Your task to perform on an android device: find which apps use the phone's location Image 0: 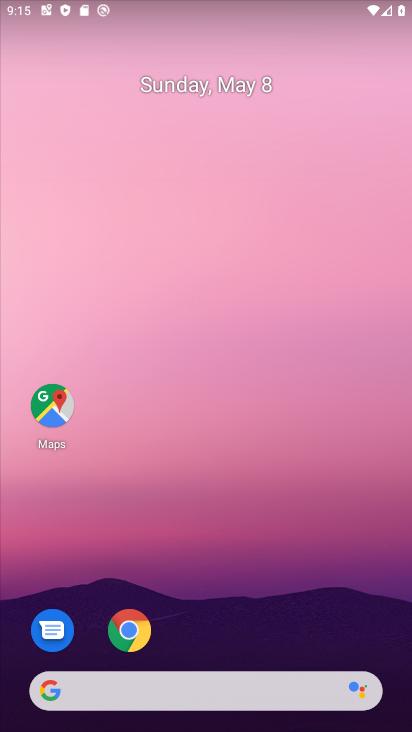
Step 0: drag from (191, 673) to (326, 169)
Your task to perform on an android device: find which apps use the phone's location Image 1: 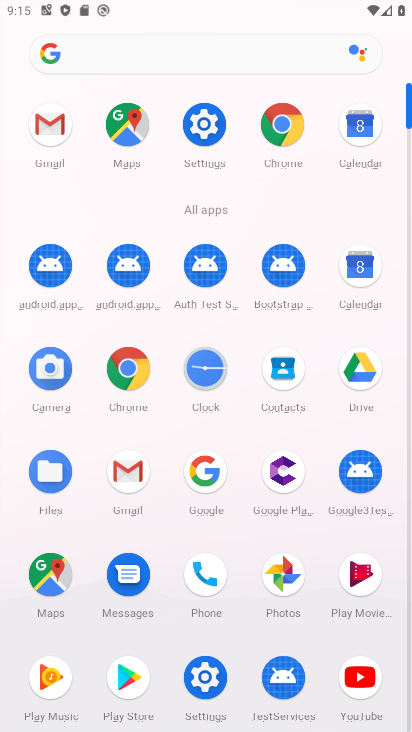
Step 1: click (205, 129)
Your task to perform on an android device: find which apps use the phone's location Image 2: 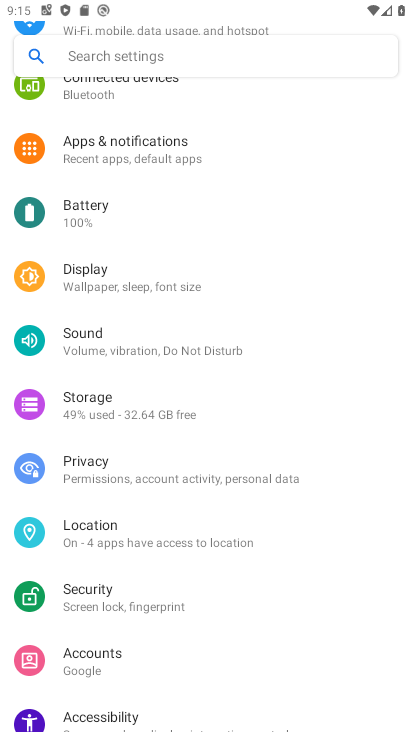
Step 2: click (135, 536)
Your task to perform on an android device: find which apps use the phone's location Image 3: 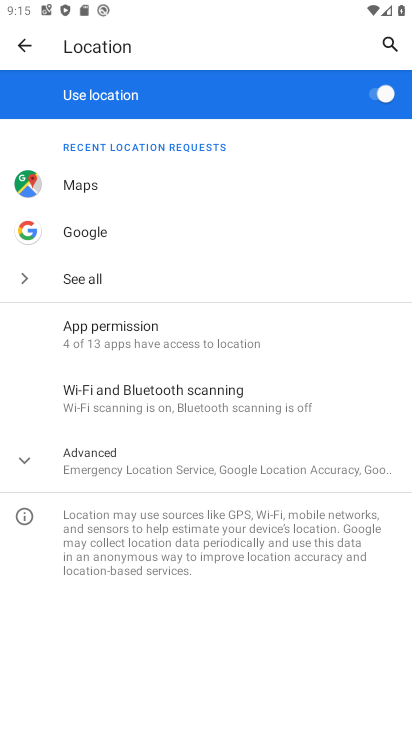
Step 3: click (133, 324)
Your task to perform on an android device: find which apps use the phone's location Image 4: 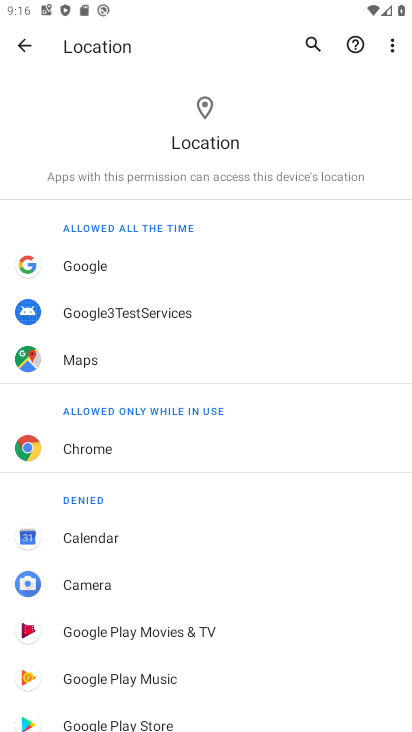
Step 4: drag from (177, 621) to (365, 264)
Your task to perform on an android device: find which apps use the phone's location Image 5: 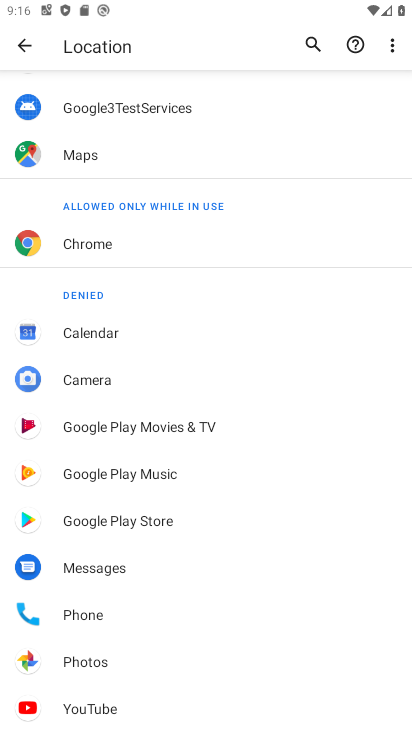
Step 5: click (95, 615)
Your task to perform on an android device: find which apps use the phone's location Image 6: 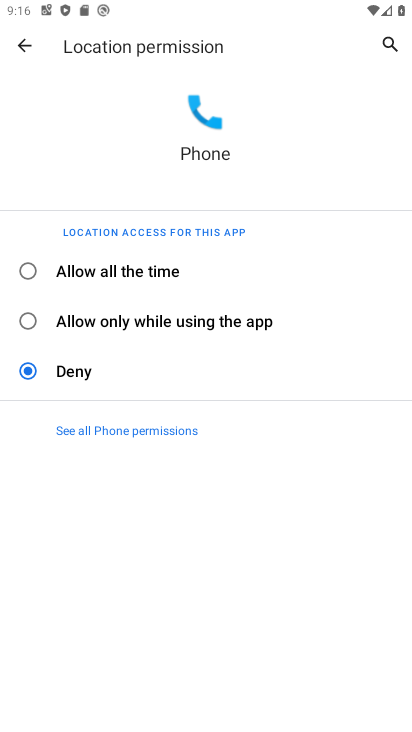
Step 6: task complete